Your task to perform on an android device: toggle sleep mode Image 0: 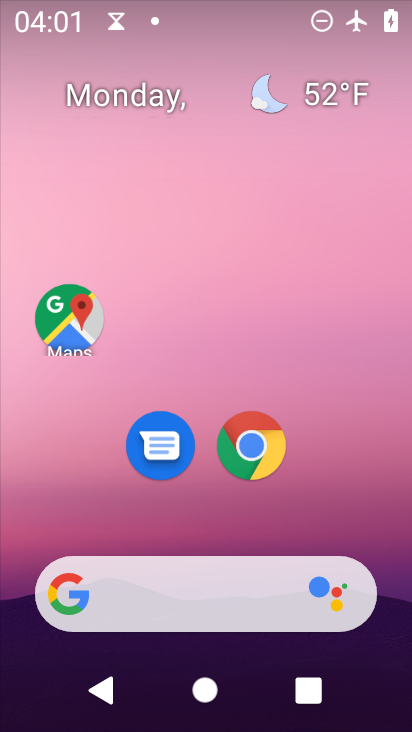
Step 0: drag from (203, 555) to (281, 52)
Your task to perform on an android device: toggle sleep mode Image 1: 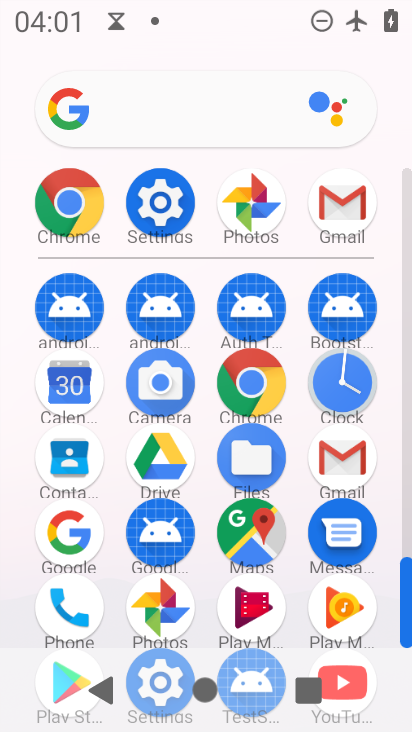
Step 1: click (168, 177)
Your task to perform on an android device: toggle sleep mode Image 2: 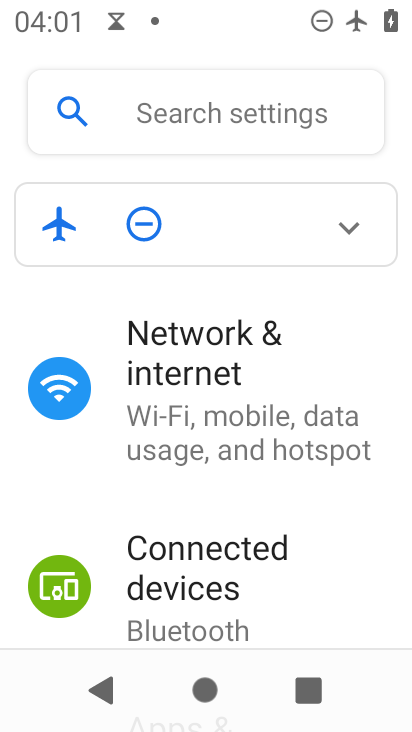
Step 2: click (261, 107)
Your task to perform on an android device: toggle sleep mode Image 3: 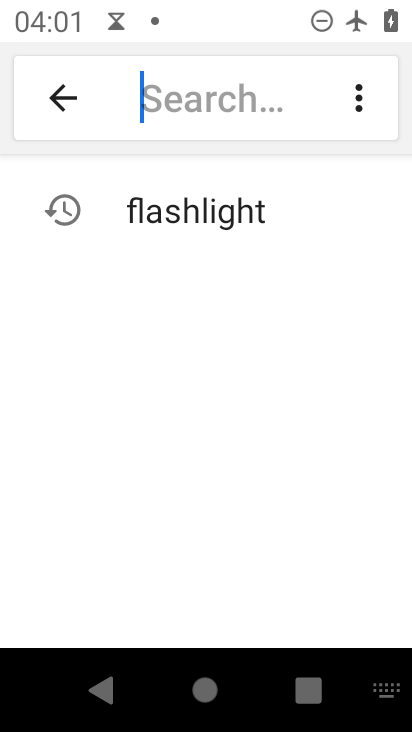
Step 3: type "sleep mode"
Your task to perform on an android device: toggle sleep mode Image 4: 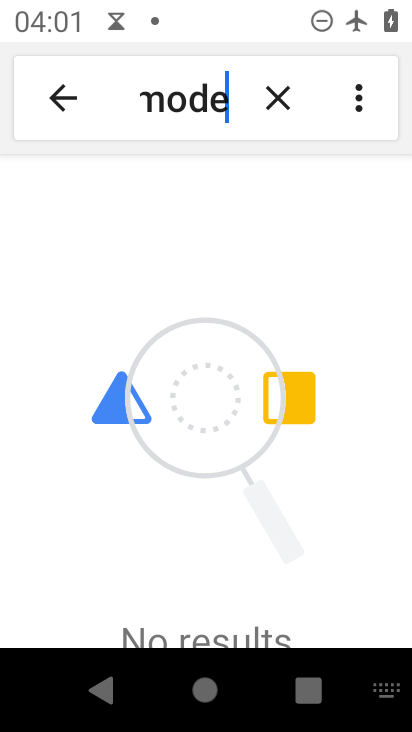
Step 4: task complete